Your task to perform on an android device: open chrome and create a bookmark for the current page Image 0: 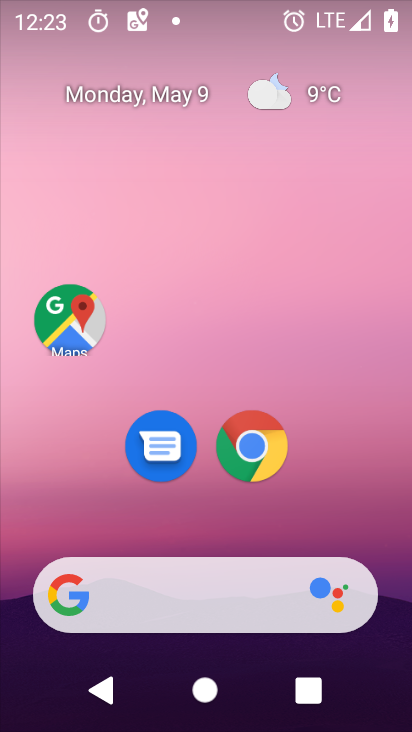
Step 0: click (247, 446)
Your task to perform on an android device: open chrome and create a bookmark for the current page Image 1: 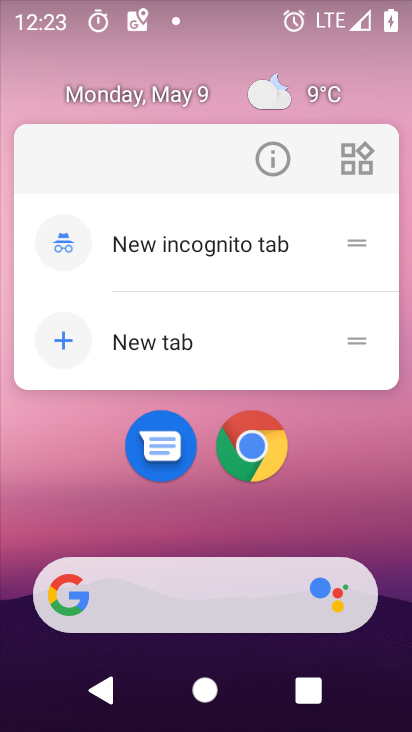
Step 1: click (247, 446)
Your task to perform on an android device: open chrome and create a bookmark for the current page Image 2: 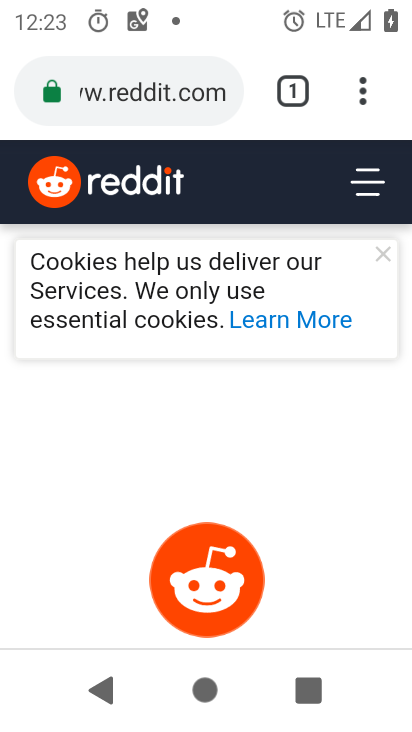
Step 2: click (366, 93)
Your task to perform on an android device: open chrome and create a bookmark for the current page Image 3: 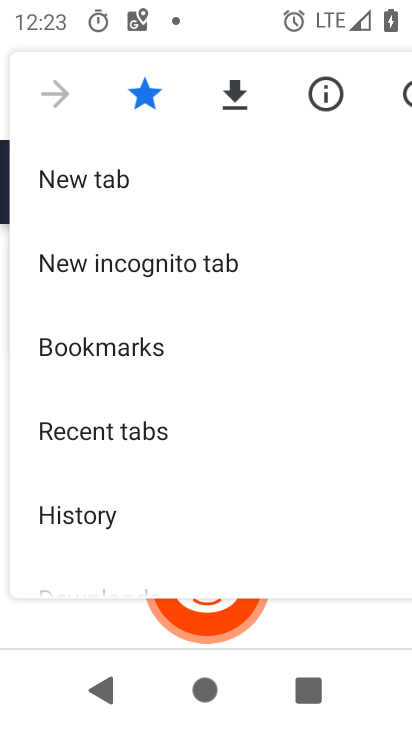
Step 3: task complete